Your task to perform on an android device: What's the price of the Samsung TV? Image 0: 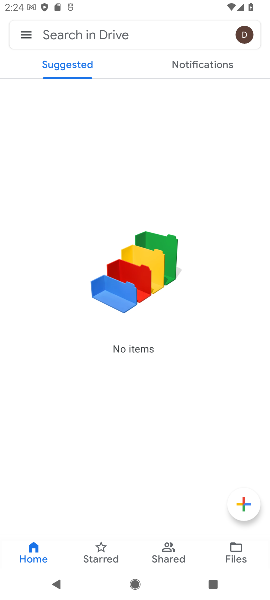
Step 0: press home button
Your task to perform on an android device: What's the price of the Samsung TV? Image 1: 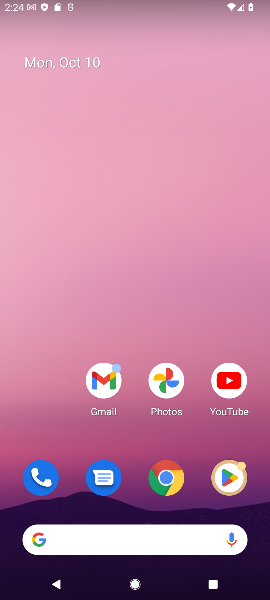
Step 1: click (118, 534)
Your task to perform on an android device: What's the price of the Samsung TV? Image 2: 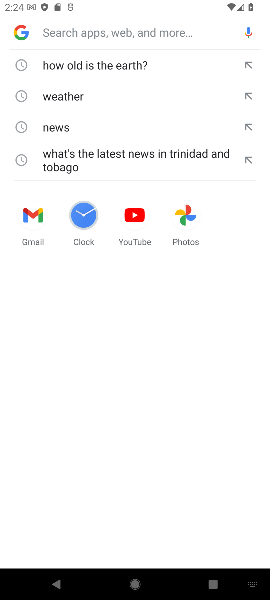
Step 2: type "What is the speed of sound?"
Your task to perform on an android device: What's the price of the Samsung TV? Image 3: 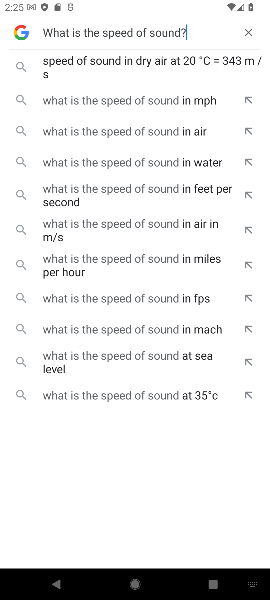
Step 3: click (203, 64)
Your task to perform on an android device: What's the price of the Samsung TV? Image 4: 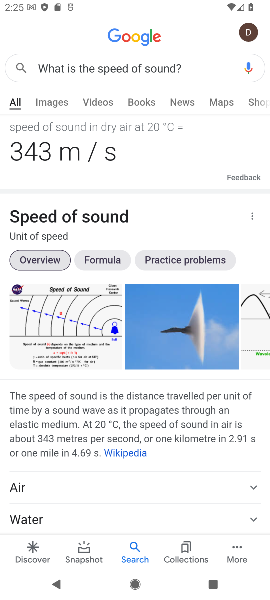
Step 4: task complete